Your task to perform on an android device: Open network settings Image 0: 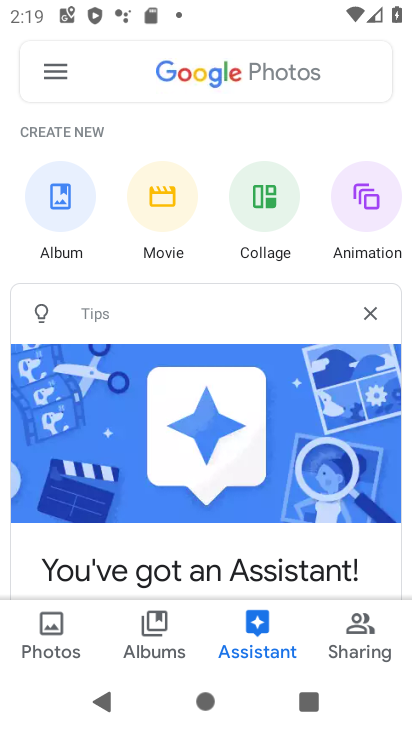
Step 0: press home button
Your task to perform on an android device: Open network settings Image 1: 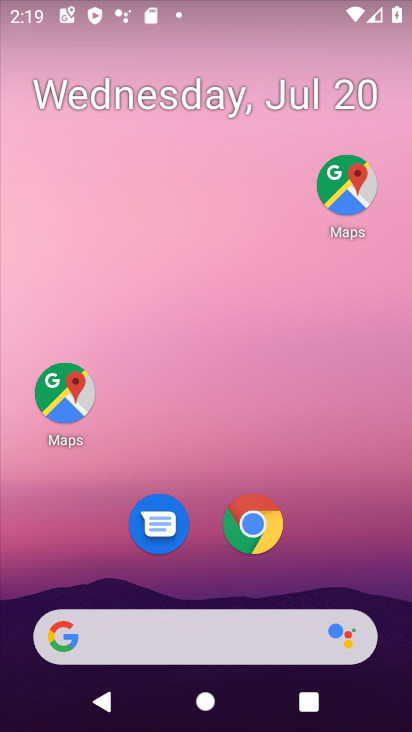
Step 1: drag from (304, 532) to (312, 71)
Your task to perform on an android device: Open network settings Image 2: 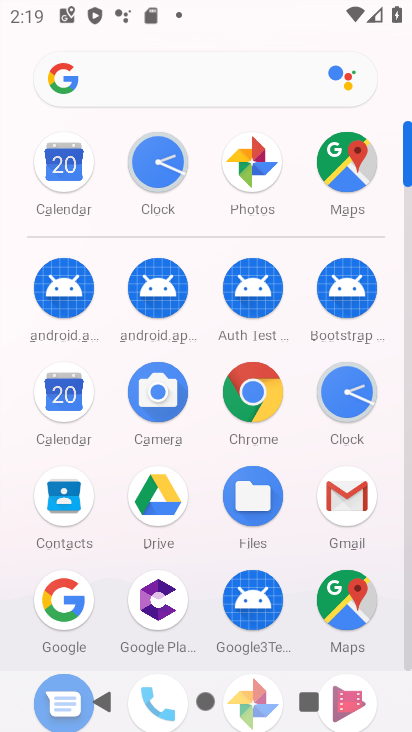
Step 2: drag from (193, 429) to (173, 106)
Your task to perform on an android device: Open network settings Image 3: 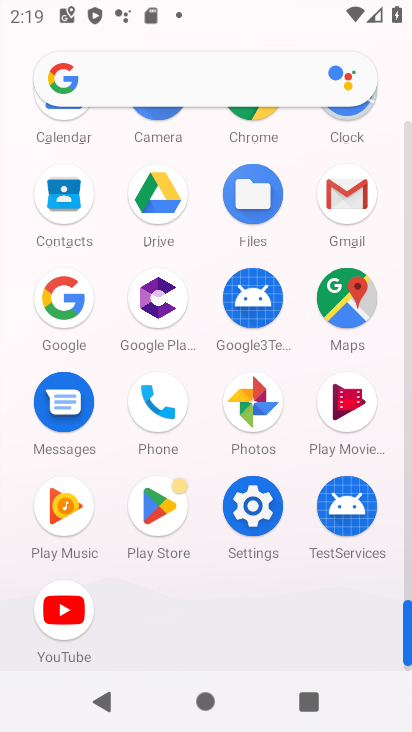
Step 3: click (251, 495)
Your task to perform on an android device: Open network settings Image 4: 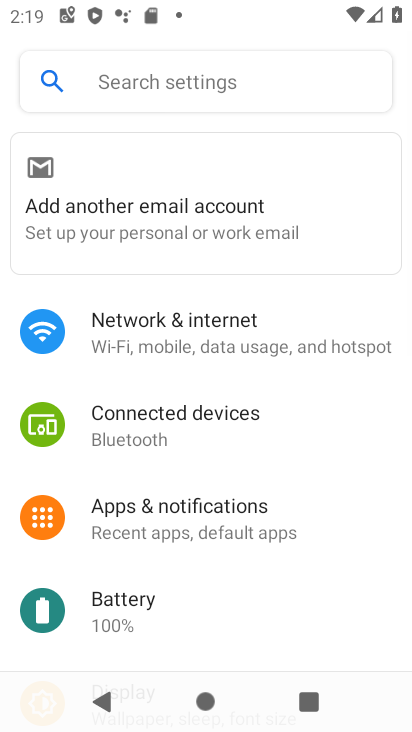
Step 4: click (228, 334)
Your task to perform on an android device: Open network settings Image 5: 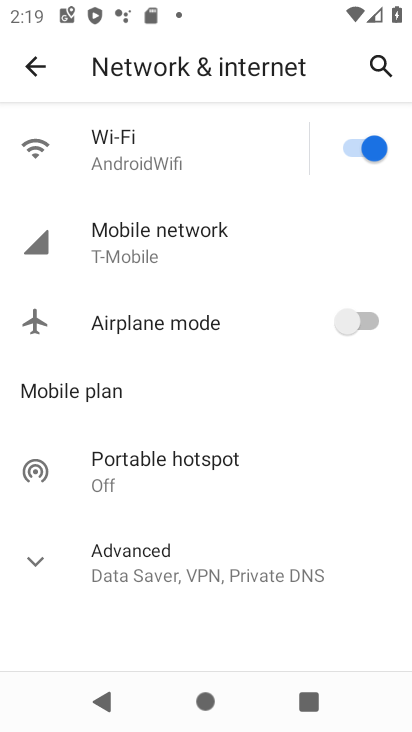
Step 5: task complete